Your task to perform on an android device: What's on my calendar tomorrow? Image 0: 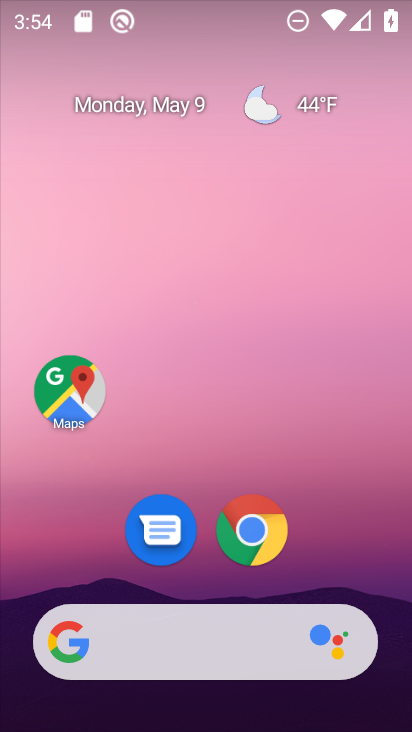
Step 0: drag from (206, 578) to (224, 142)
Your task to perform on an android device: What's on my calendar tomorrow? Image 1: 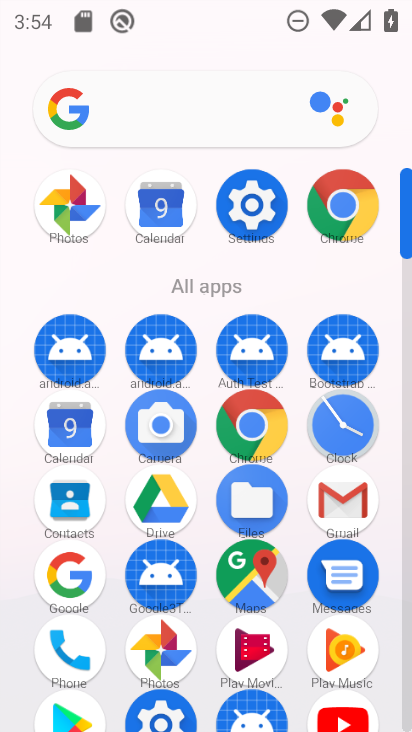
Step 1: click (67, 418)
Your task to perform on an android device: What's on my calendar tomorrow? Image 2: 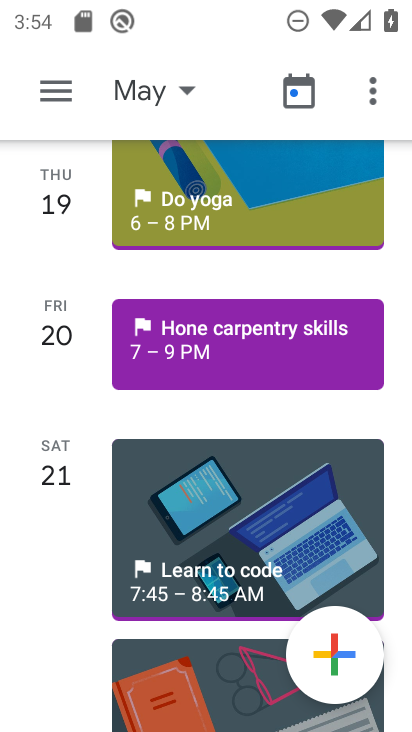
Step 2: click (54, 92)
Your task to perform on an android device: What's on my calendar tomorrow? Image 3: 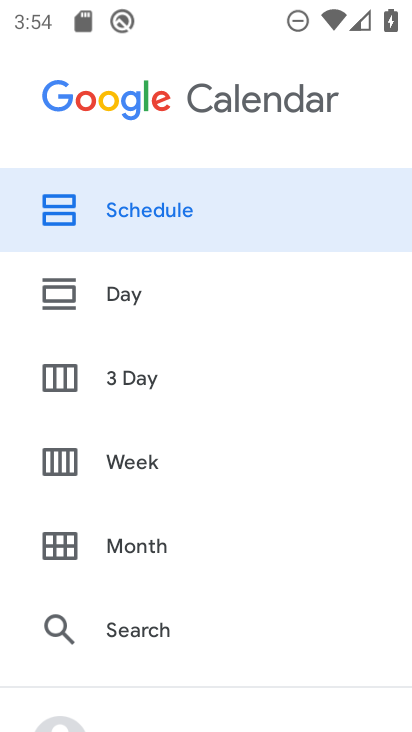
Step 3: click (90, 280)
Your task to perform on an android device: What's on my calendar tomorrow? Image 4: 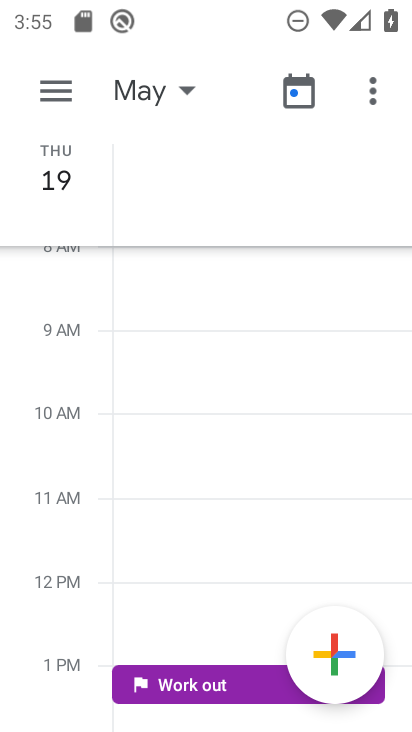
Step 4: click (182, 88)
Your task to perform on an android device: What's on my calendar tomorrow? Image 5: 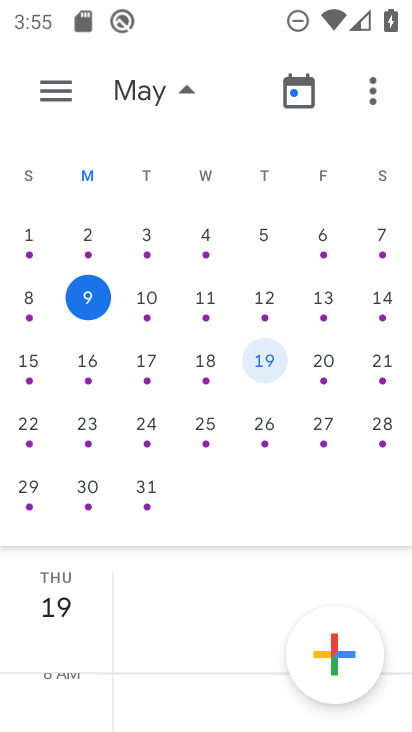
Step 5: click (151, 293)
Your task to perform on an android device: What's on my calendar tomorrow? Image 6: 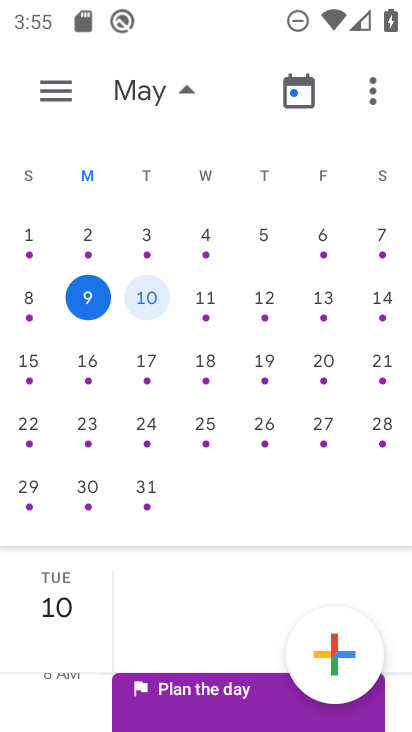
Step 6: drag from (78, 667) to (80, 322)
Your task to perform on an android device: What's on my calendar tomorrow? Image 7: 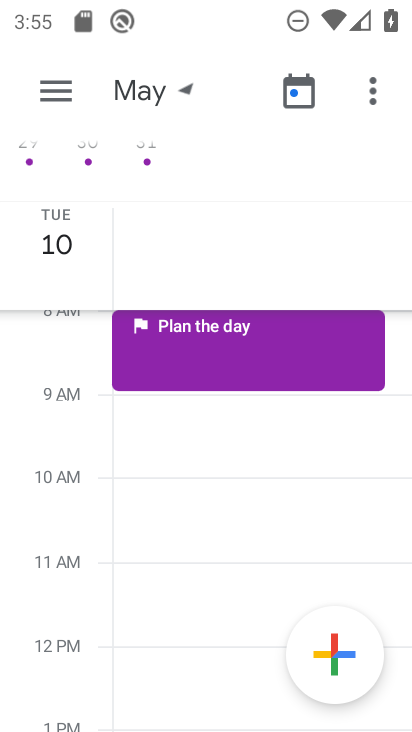
Step 7: click (80, 255)
Your task to perform on an android device: What's on my calendar tomorrow? Image 8: 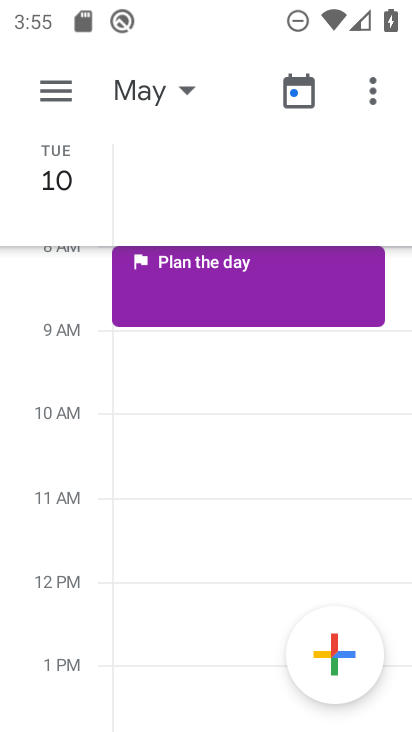
Step 8: drag from (67, 302) to (87, 710)
Your task to perform on an android device: What's on my calendar tomorrow? Image 9: 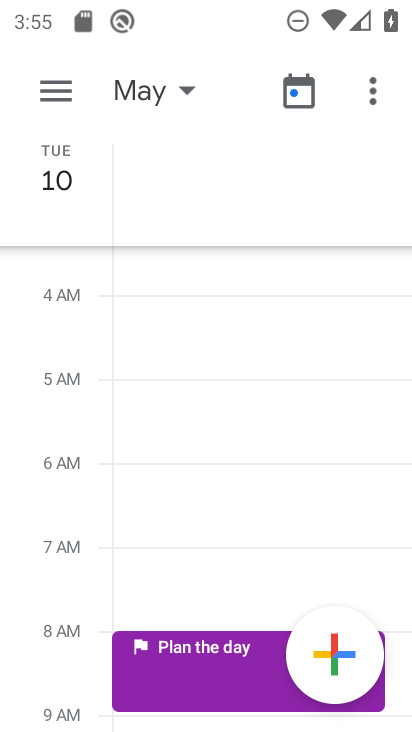
Step 9: drag from (90, 316) to (94, 653)
Your task to perform on an android device: What's on my calendar tomorrow? Image 10: 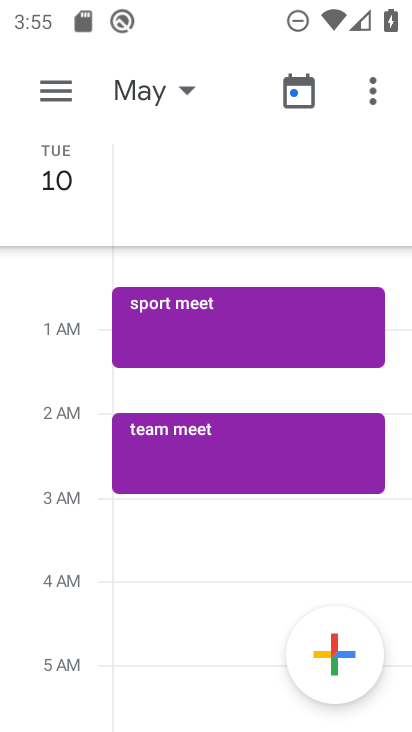
Step 10: drag from (88, 340) to (69, 576)
Your task to perform on an android device: What's on my calendar tomorrow? Image 11: 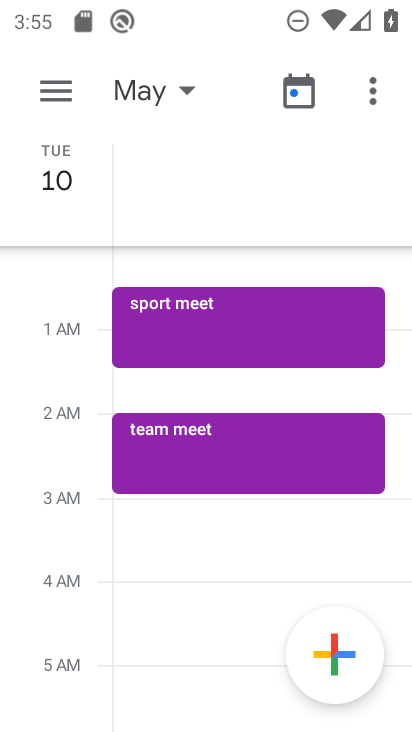
Step 11: drag from (70, 635) to (65, 175)
Your task to perform on an android device: What's on my calendar tomorrow? Image 12: 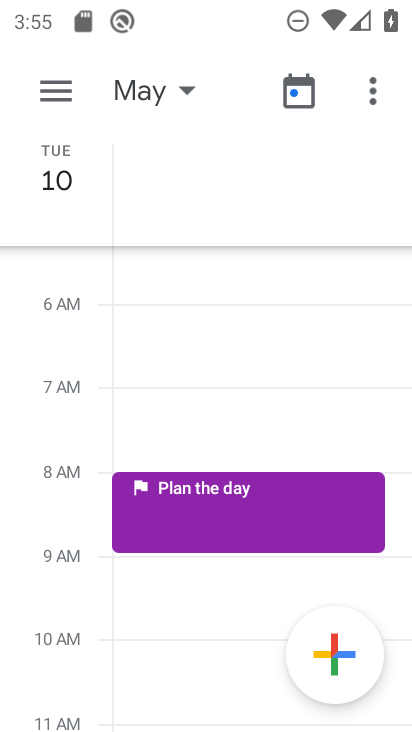
Step 12: drag from (68, 646) to (70, 313)
Your task to perform on an android device: What's on my calendar tomorrow? Image 13: 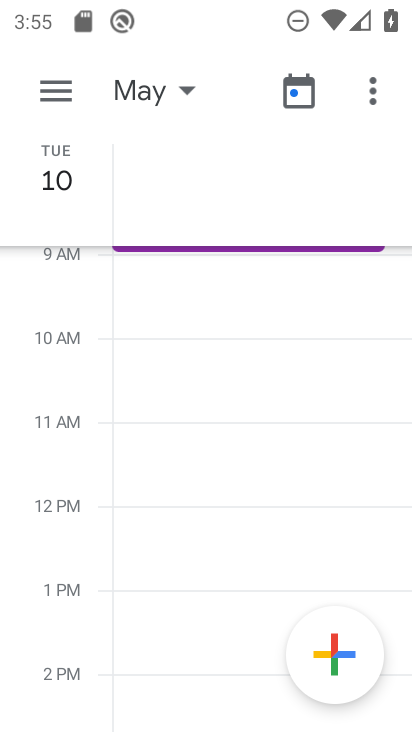
Step 13: click (73, 267)
Your task to perform on an android device: What's on my calendar tomorrow? Image 14: 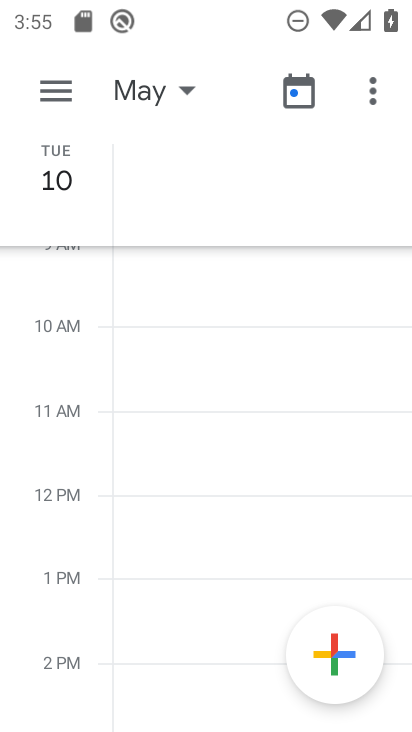
Step 14: drag from (74, 656) to (80, 361)
Your task to perform on an android device: What's on my calendar tomorrow? Image 15: 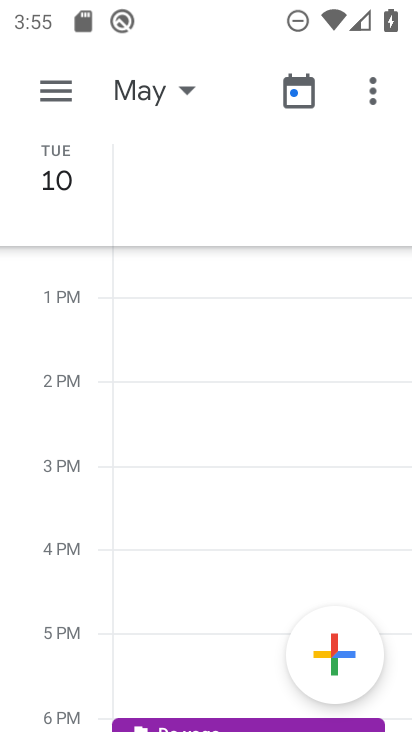
Step 15: click (82, 289)
Your task to perform on an android device: What's on my calendar tomorrow? Image 16: 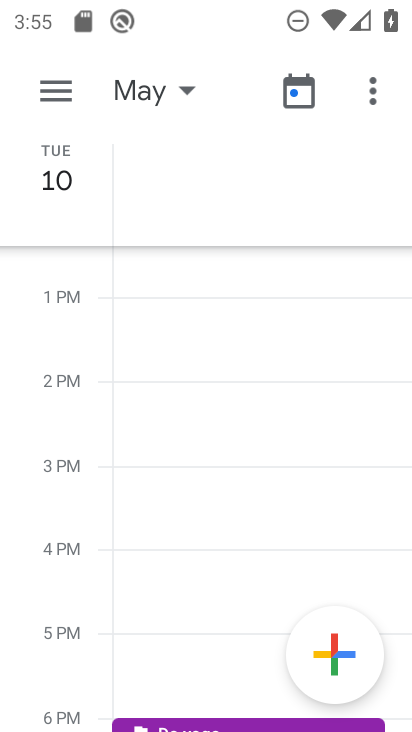
Step 16: task complete